Your task to perform on an android device: Check the weather Image 0: 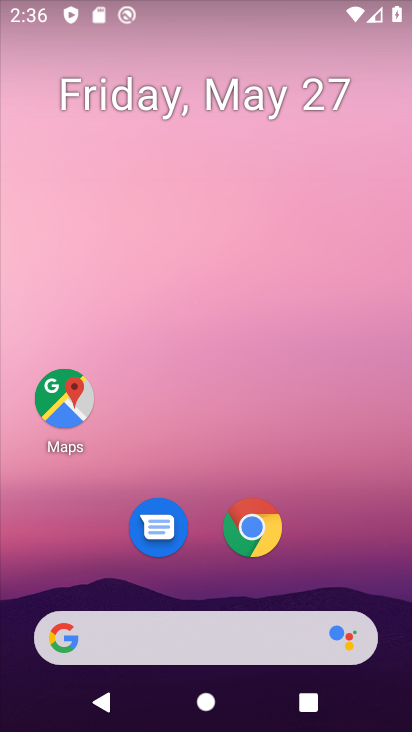
Step 0: click (187, 634)
Your task to perform on an android device: Check the weather Image 1: 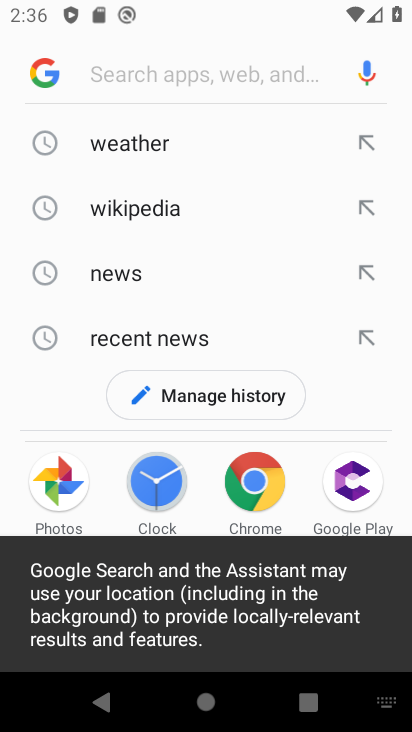
Step 1: click (147, 125)
Your task to perform on an android device: Check the weather Image 2: 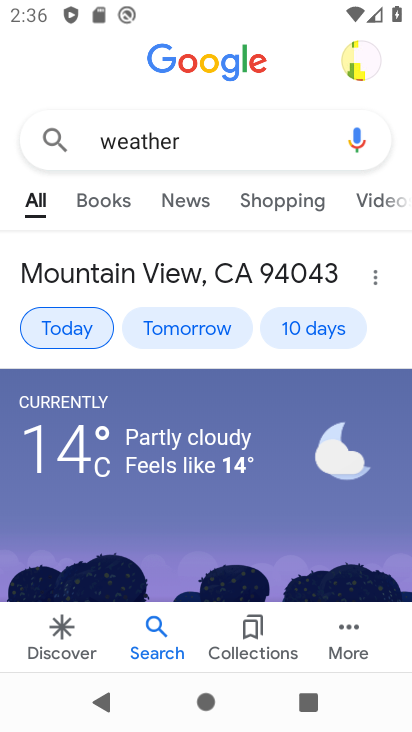
Step 2: task complete